Your task to perform on an android device: turn off picture-in-picture Image 0: 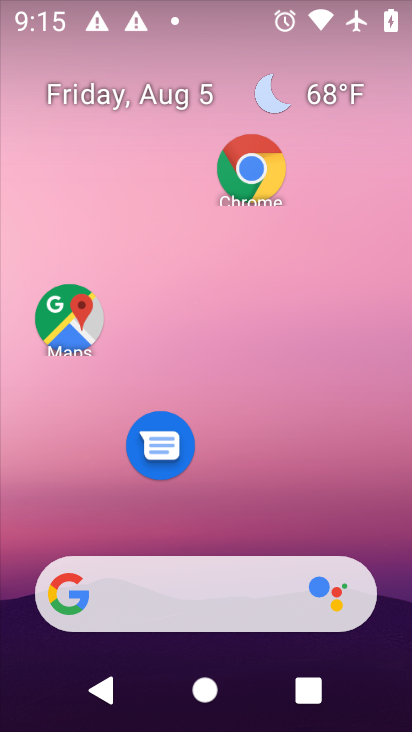
Step 0: click (235, 174)
Your task to perform on an android device: turn off picture-in-picture Image 1: 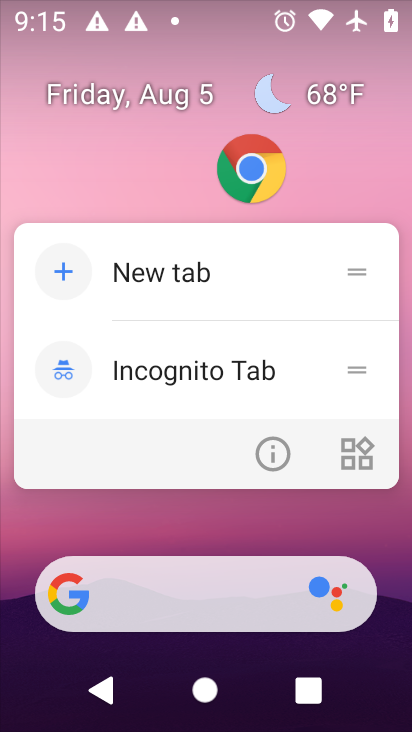
Step 1: click (276, 453)
Your task to perform on an android device: turn off picture-in-picture Image 2: 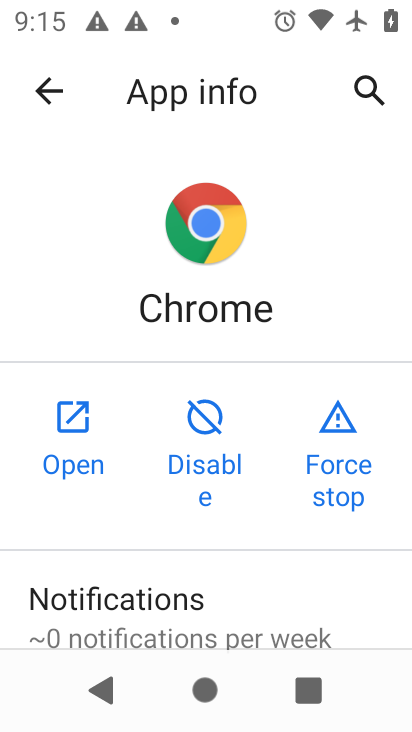
Step 2: drag from (203, 384) to (215, 204)
Your task to perform on an android device: turn off picture-in-picture Image 3: 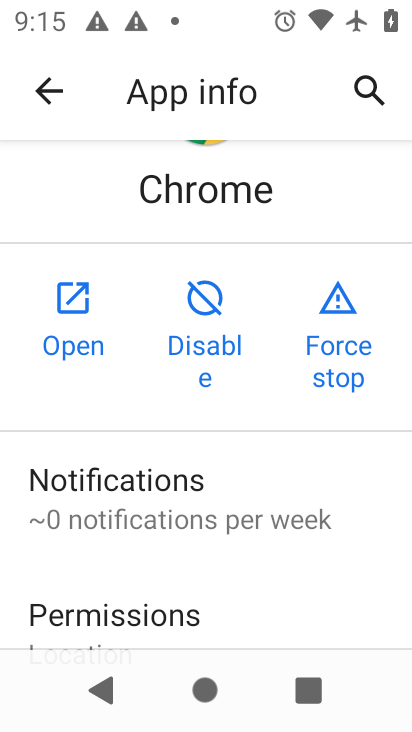
Step 3: drag from (218, 617) to (228, 207)
Your task to perform on an android device: turn off picture-in-picture Image 4: 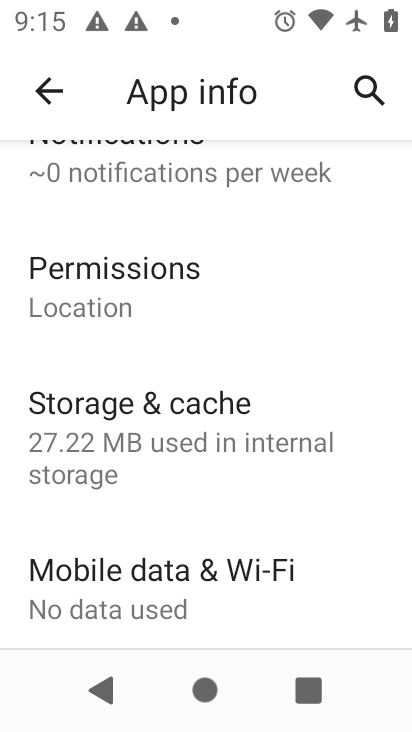
Step 4: drag from (213, 603) to (213, 214)
Your task to perform on an android device: turn off picture-in-picture Image 5: 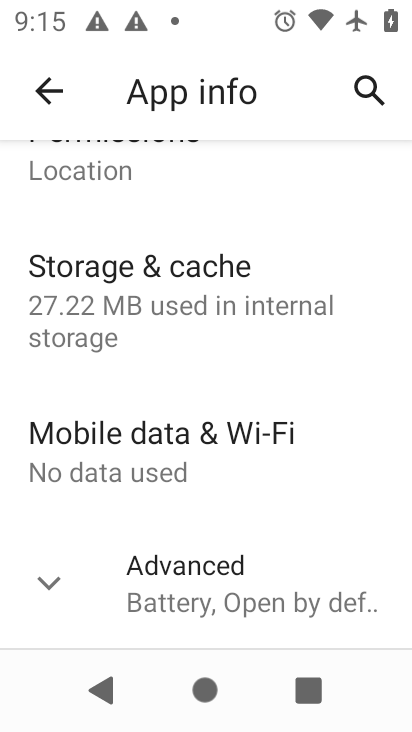
Step 5: click (197, 560)
Your task to perform on an android device: turn off picture-in-picture Image 6: 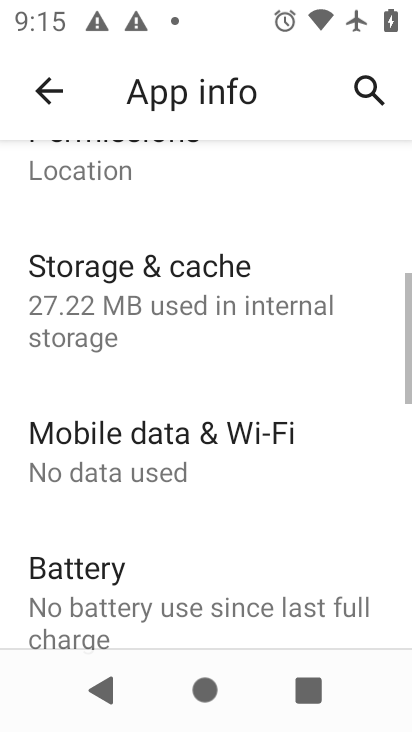
Step 6: drag from (202, 588) to (206, 203)
Your task to perform on an android device: turn off picture-in-picture Image 7: 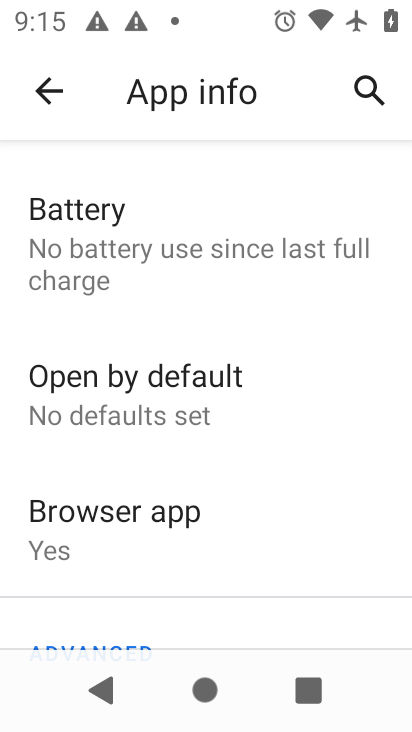
Step 7: drag from (206, 590) to (206, 260)
Your task to perform on an android device: turn off picture-in-picture Image 8: 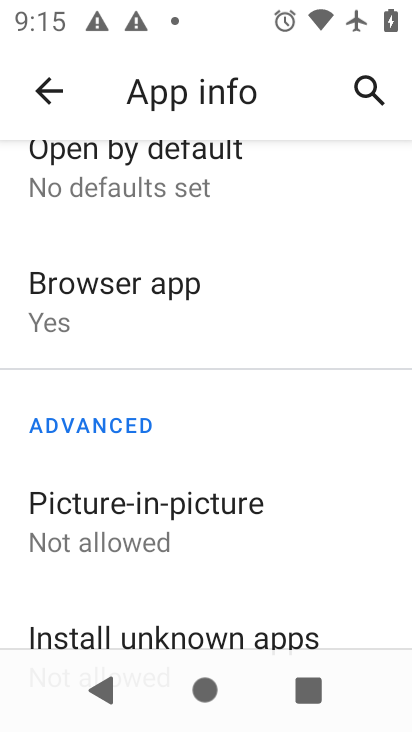
Step 8: click (191, 521)
Your task to perform on an android device: turn off picture-in-picture Image 9: 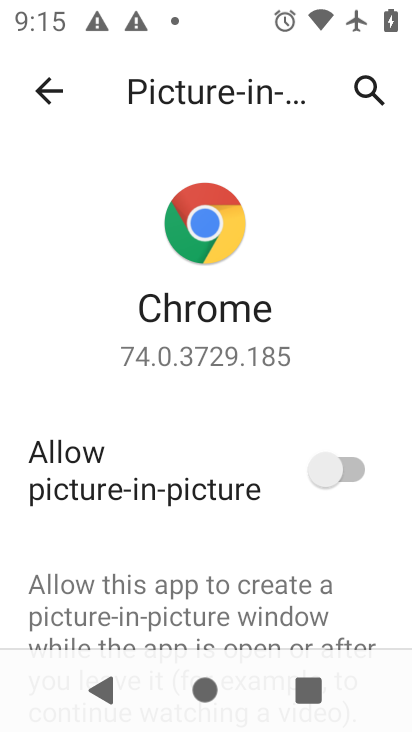
Step 9: task complete